Your task to perform on an android device: Open Youtube and go to "Your channel" Image 0: 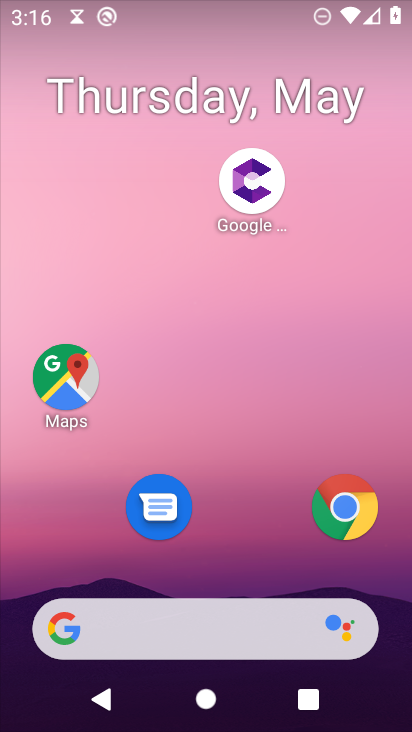
Step 0: drag from (189, 526) to (110, 109)
Your task to perform on an android device: Open Youtube and go to "Your channel" Image 1: 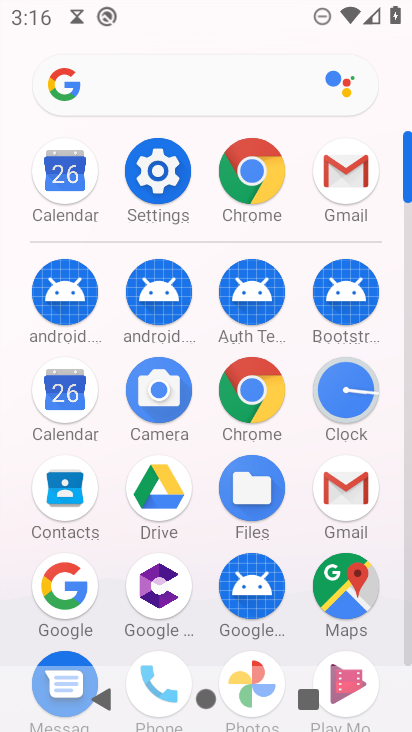
Step 1: drag from (114, 648) to (141, 88)
Your task to perform on an android device: Open Youtube and go to "Your channel" Image 2: 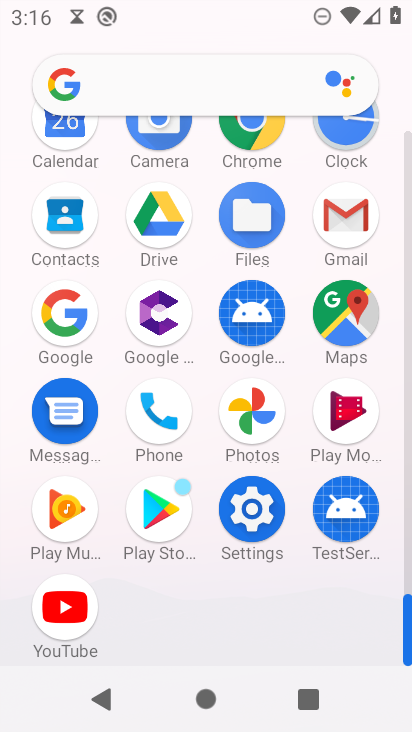
Step 2: click (83, 599)
Your task to perform on an android device: Open Youtube and go to "Your channel" Image 3: 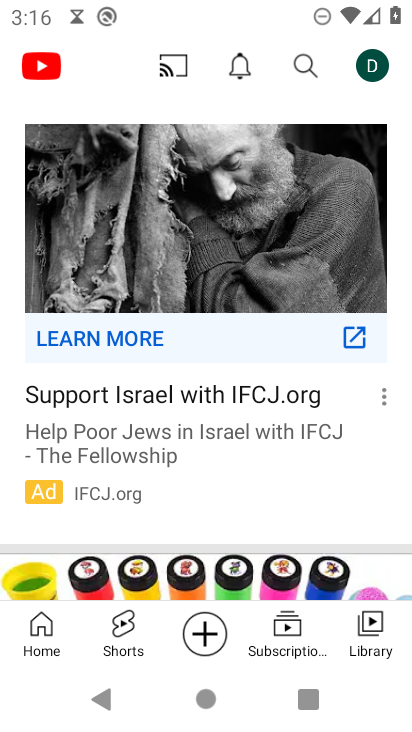
Step 3: click (287, 635)
Your task to perform on an android device: Open Youtube and go to "Your channel" Image 4: 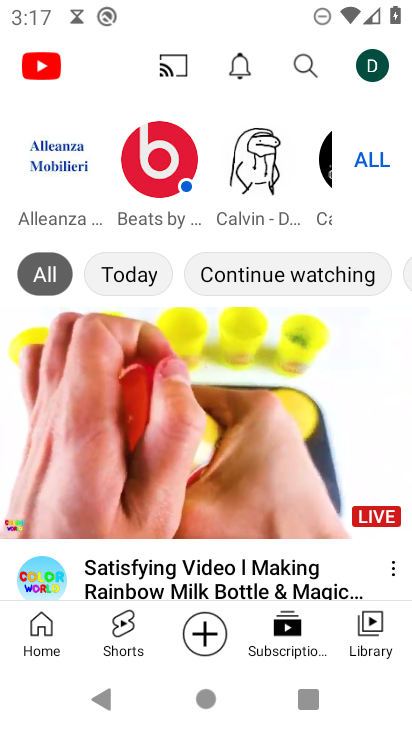
Step 4: click (384, 59)
Your task to perform on an android device: Open Youtube and go to "Your channel" Image 5: 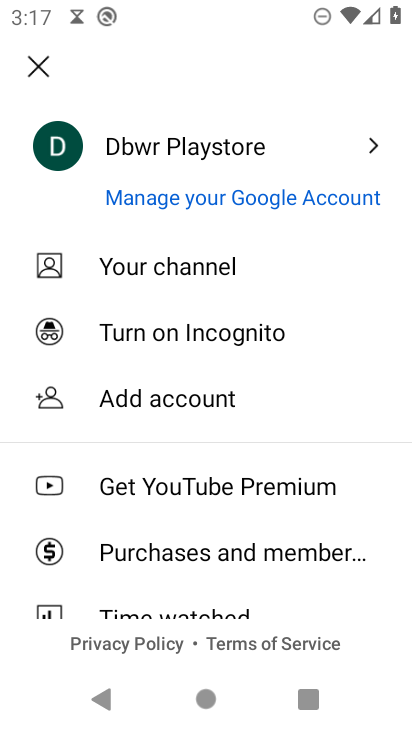
Step 5: click (159, 267)
Your task to perform on an android device: Open Youtube and go to "Your channel" Image 6: 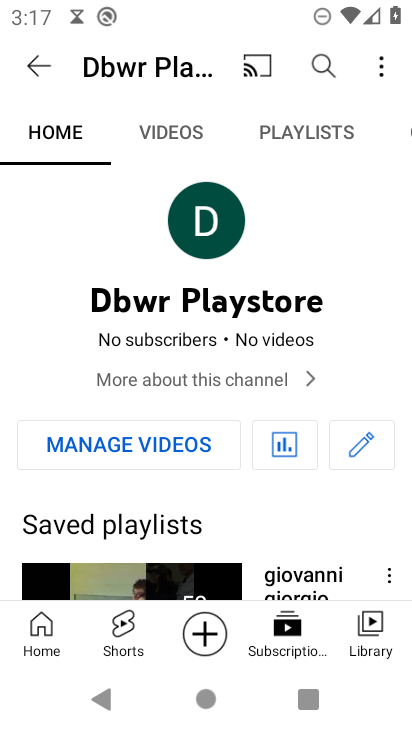
Step 6: task complete